Your task to perform on an android device: turn on the 12-hour format for clock Image 0: 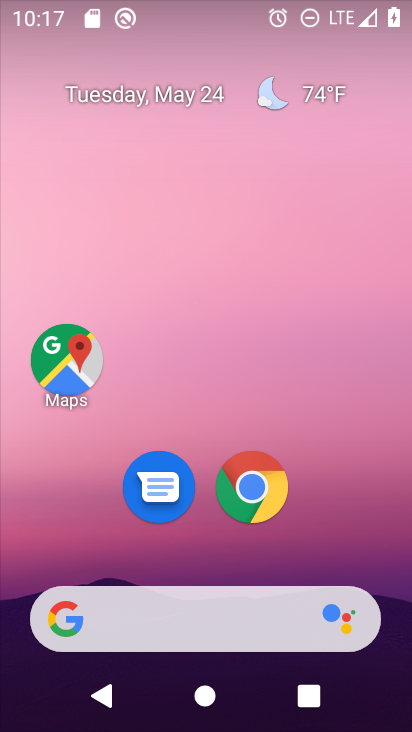
Step 0: drag from (376, 612) to (350, 0)
Your task to perform on an android device: turn on the 12-hour format for clock Image 1: 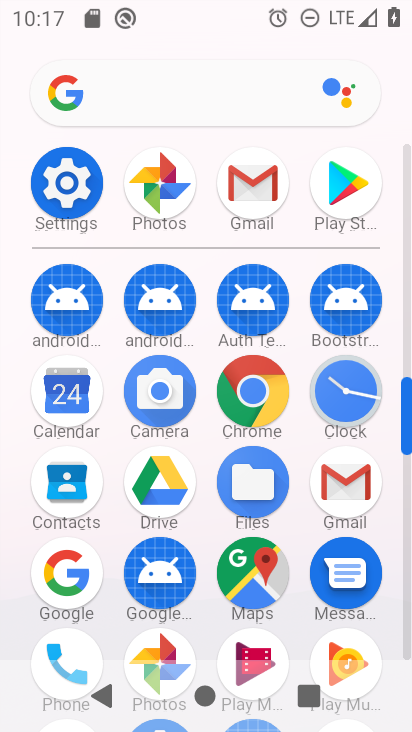
Step 1: click (343, 395)
Your task to perform on an android device: turn on the 12-hour format for clock Image 2: 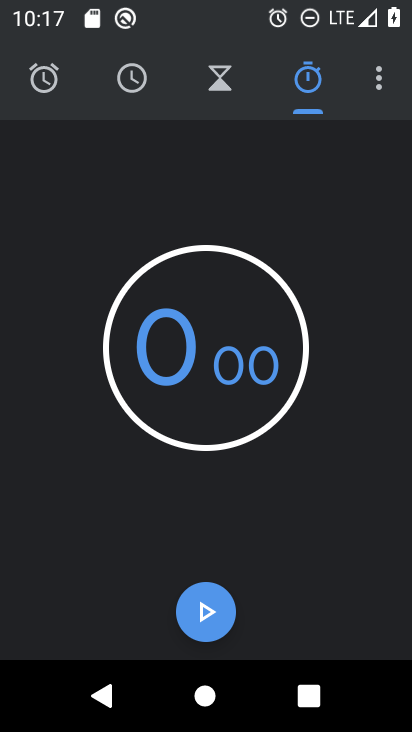
Step 2: click (380, 83)
Your task to perform on an android device: turn on the 12-hour format for clock Image 3: 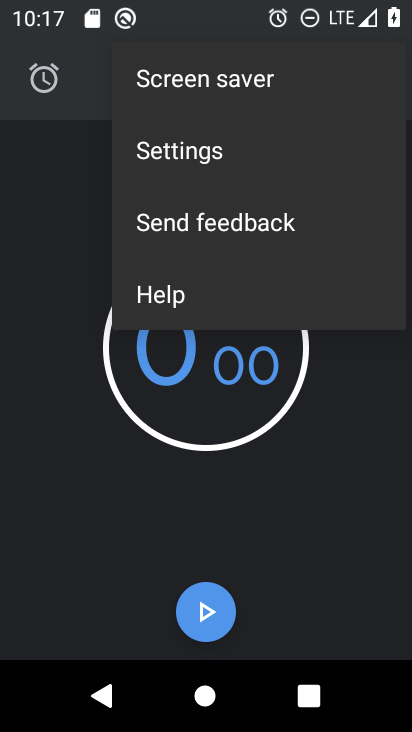
Step 3: click (170, 164)
Your task to perform on an android device: turn on the 12-hour format for clock Image 4: 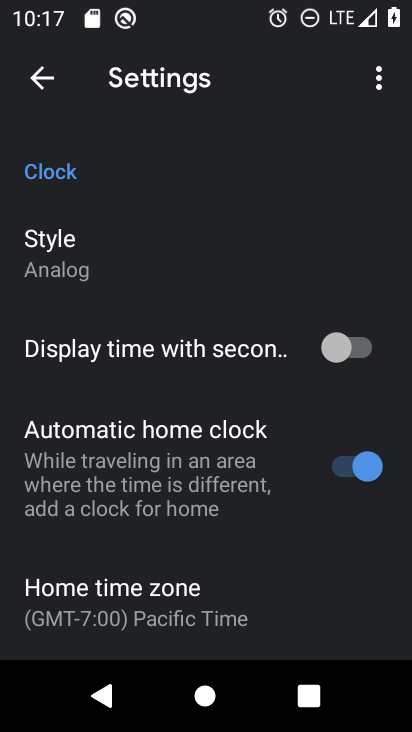
Step 4: drag from (130, 498) to (99, 192)
Your task to perform on an android device: turn on the 12-hour format for clock Image 5: 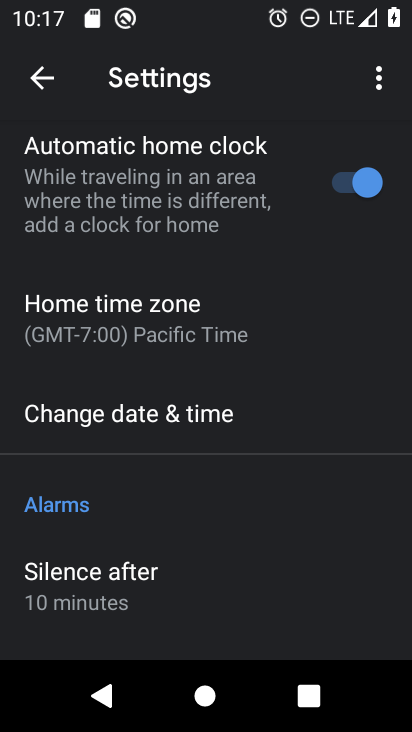
Step 5: click (116, 423)
Your task to perform on an android device: turn on the 12-hour format for clock Image 6: 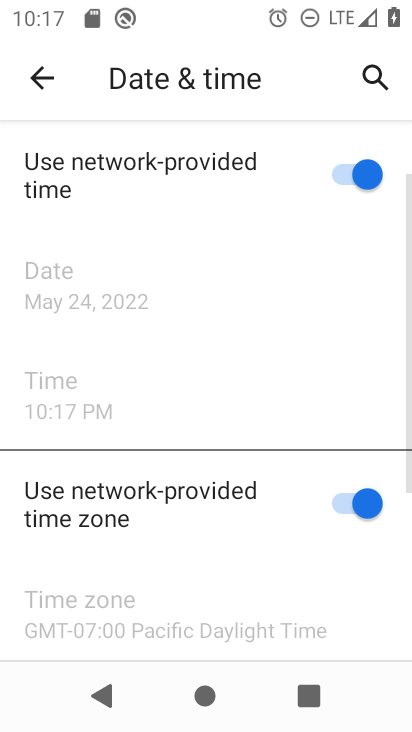
Step 6: task complete